Your task to perform on an android device: Open the web browser Image 0: 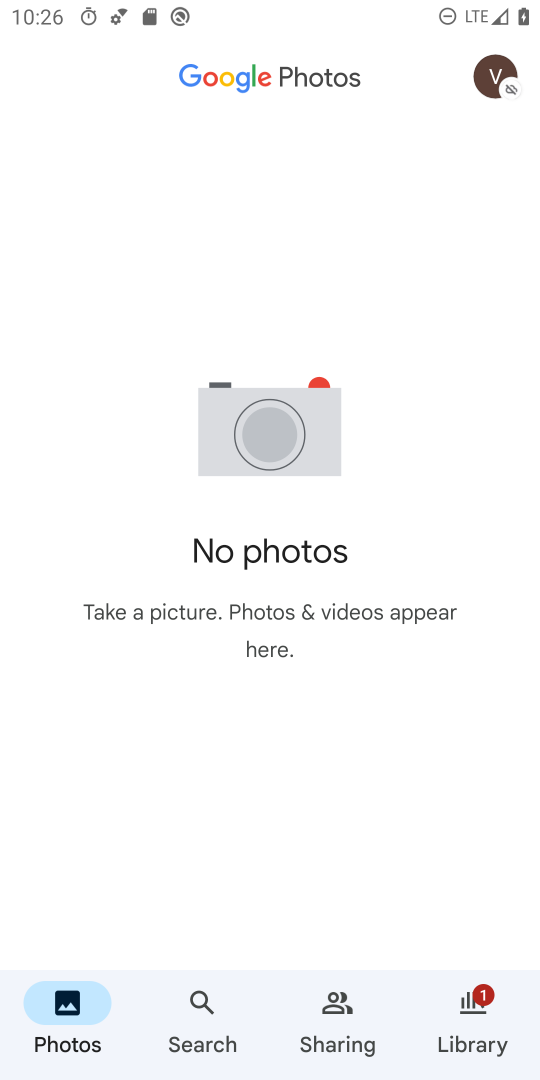
Step 0: press home button
Your task to perform on an android device: Open the web browser Image 1: 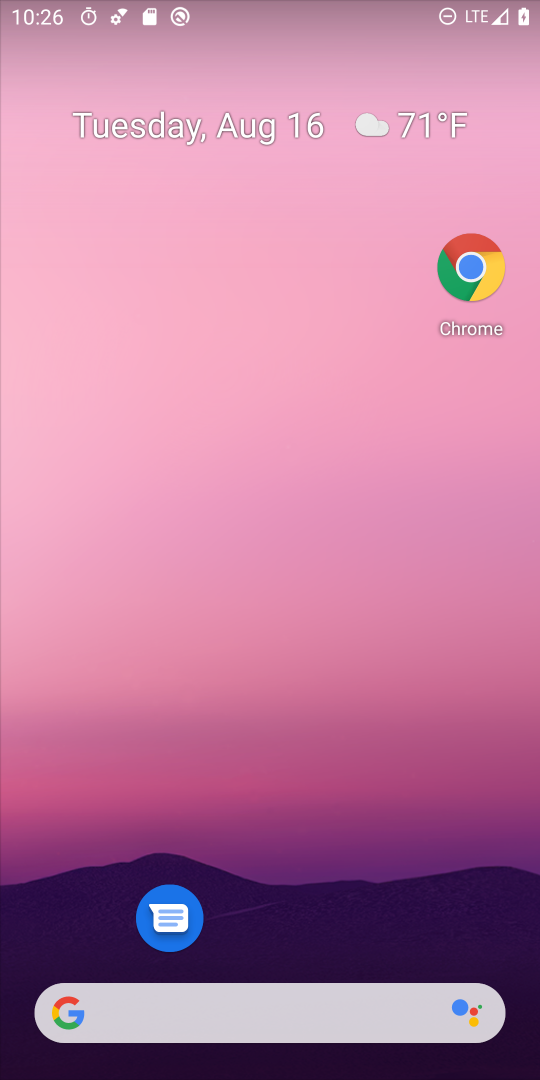
Step 1: click (465, 329)
Your task to perform on an android device: Open the web browser Image 2: 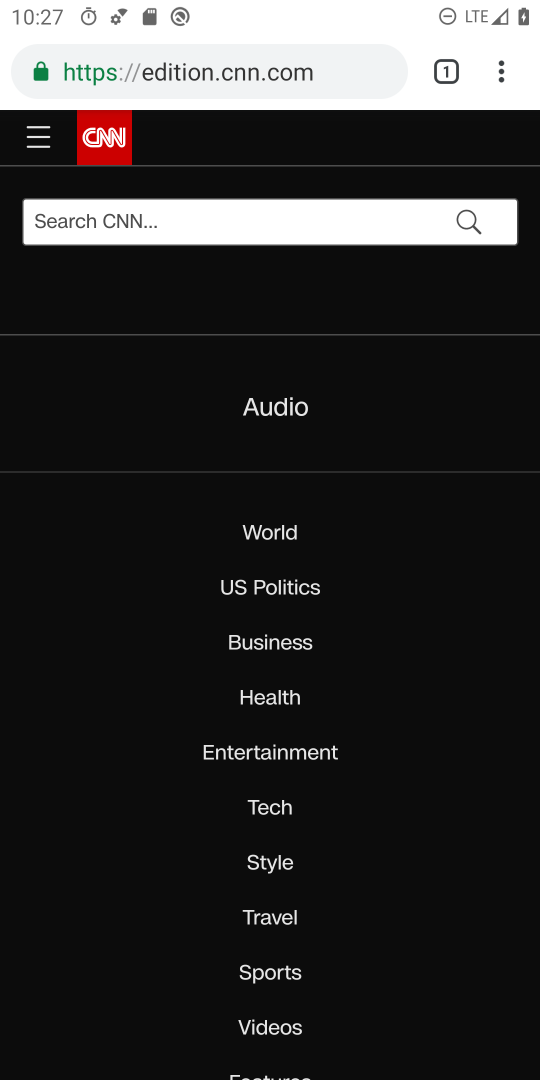
Step 2: task complete